Your task to perform on an android device: Open calendar and show me the second week of next month Image 0: 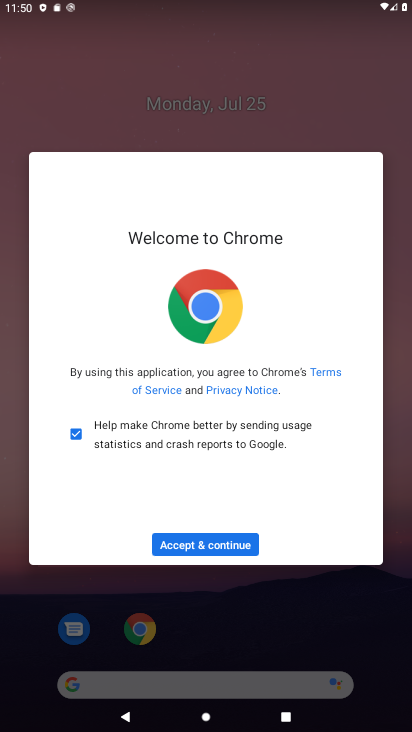
Step 0: press home button
Your task to perform on an android device: Open calendar and show me the second week of next month Image 1: 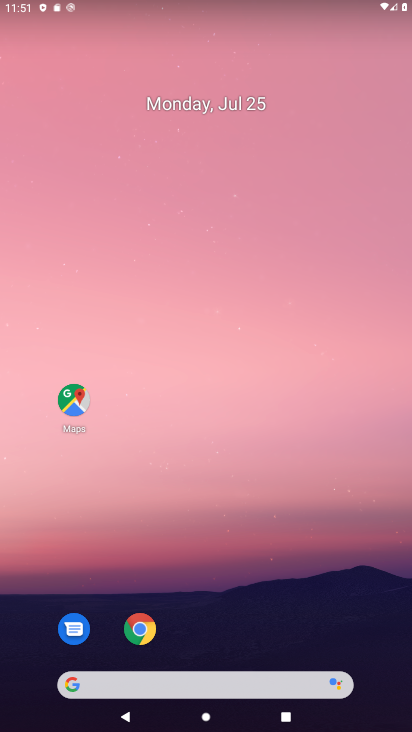
Step 1: drag from (342, 612) to (191, 46)
Your task to perform on an android device: Open calendar and show me the second week of next month Image 2: 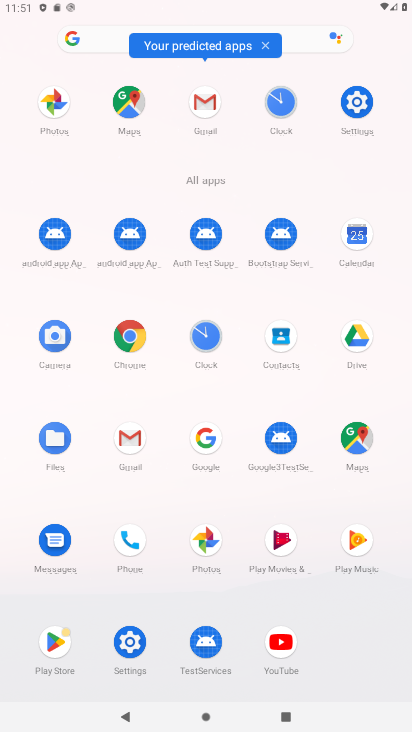
Step 2: click (355, 229)
Your task to perform on an android device: Open calendar and show me the second week of next month Image 3: 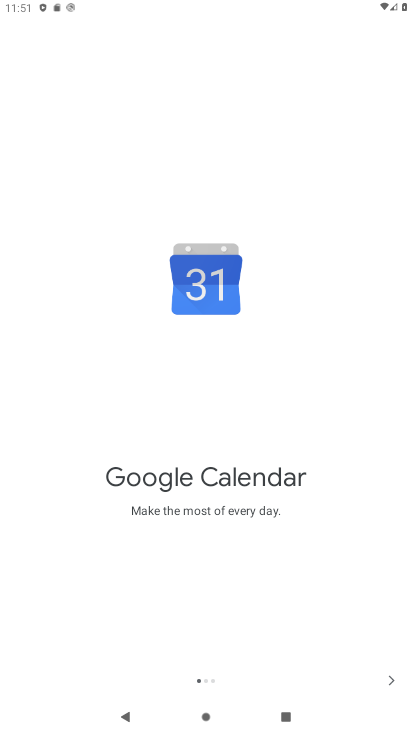
Step 3: click (390, 678)
Your task to perform on an android device: Open calendar and show me the second week of next month Image 4: 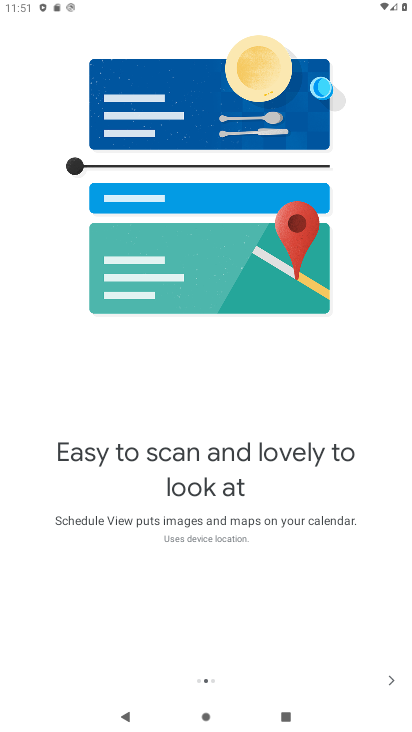
Step 4: click (390, 678)
Your task to perform on an android device: Open calendar and show me the second week of next month Image 5: 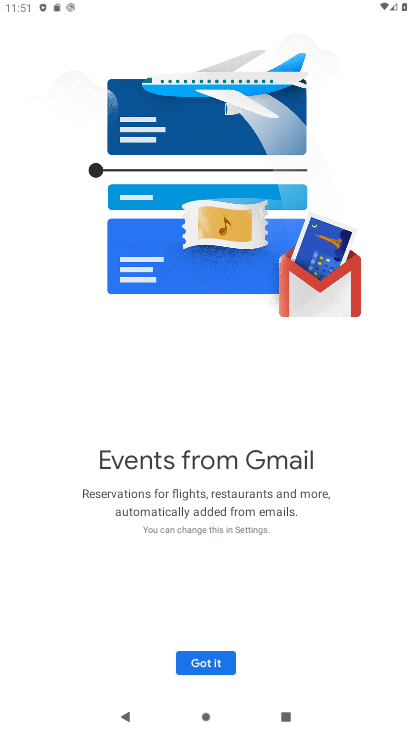
Step 5: click (199, 667)
Your task to perform on an android device: Open calendar and show me the second week of next month Image 6: 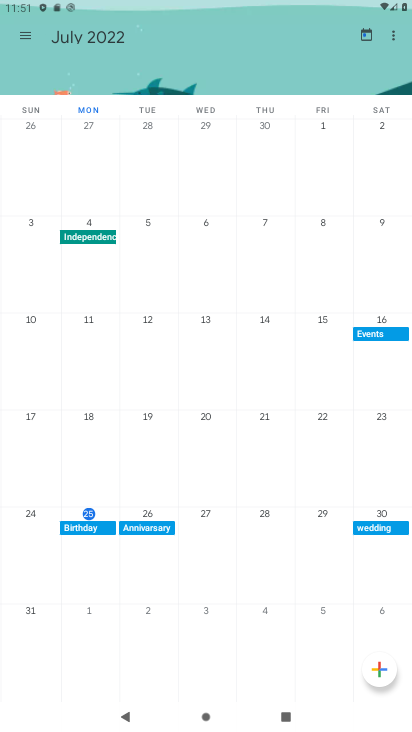
Step 6: click (29, 43)
Your task to perform on an android device: Open calendar and show me the second week of next month Image 7: 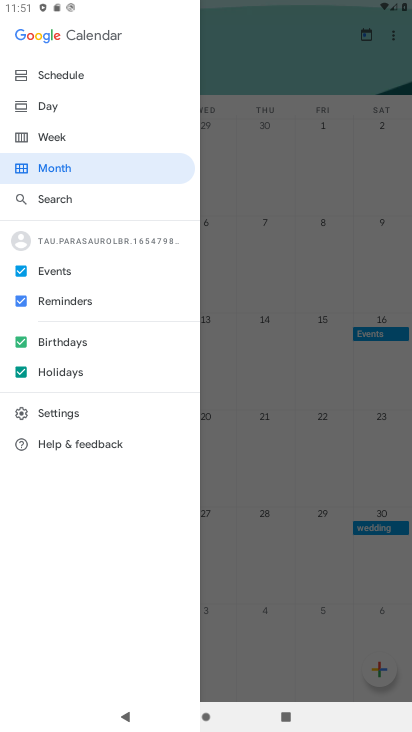
Step 7: click (62, 139)
Your task to perform on an android device: Open calendar and show me the second week of next month Image 8: 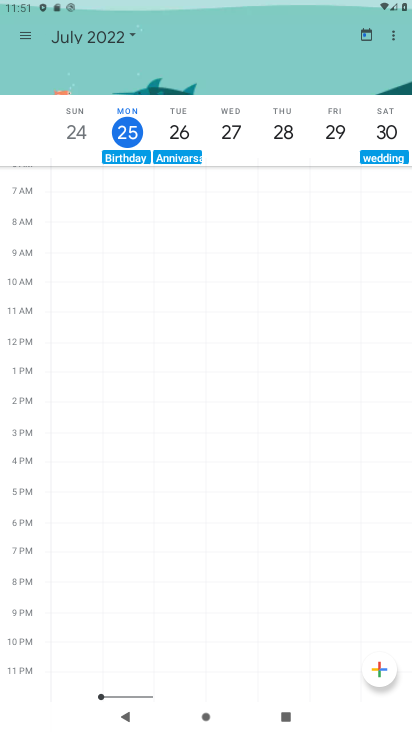
Step 8: click (128, 37)
Your task to perform on an android device: Open calendar and show me the second week of next month Image 9: 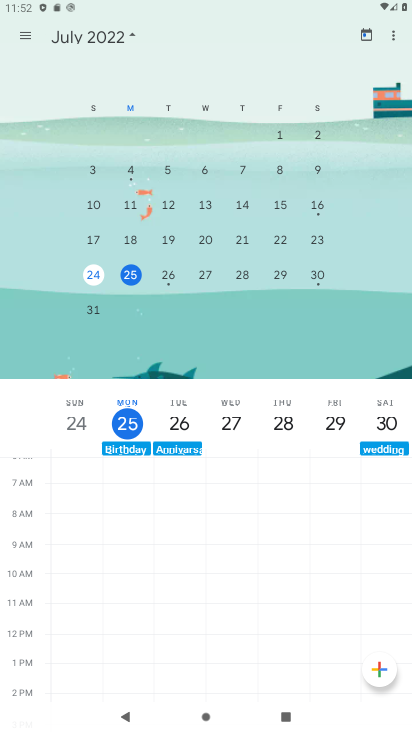
Step 9: click (99, 311)
Your task to perform on an android device: Open calendar and show me the second week of next month Image 10: 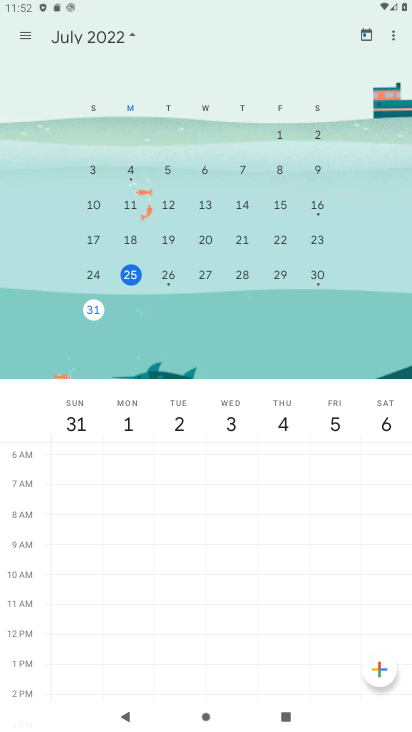
Step 10: task complete